Your task to perform on an android device: turn on notifications settings in the gmail app Image 0: 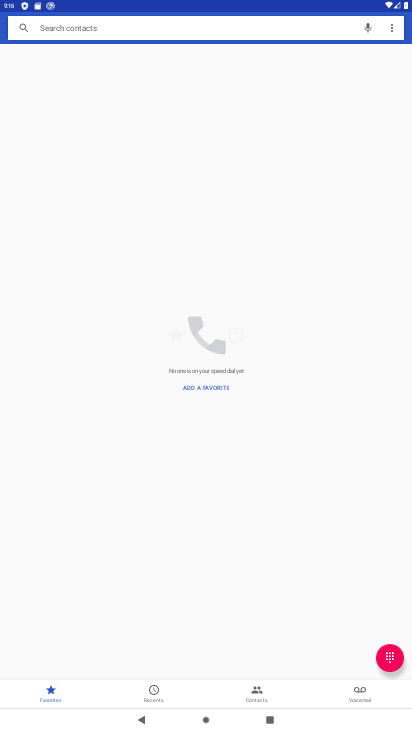
Step 0: press home button
Your task to perform on an android device: turn on notifications settings in the gmail app Image 1: 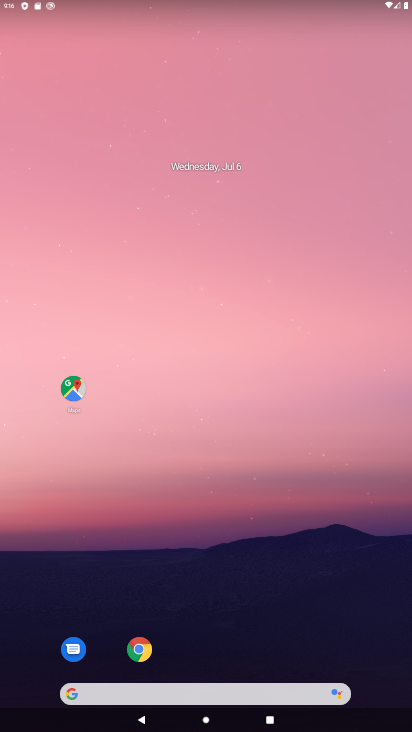
Step 1: drag from (223, 639) to (225, 168)
Your task to perform on an android device: turn on notifications settings in the gmail app Image 2: 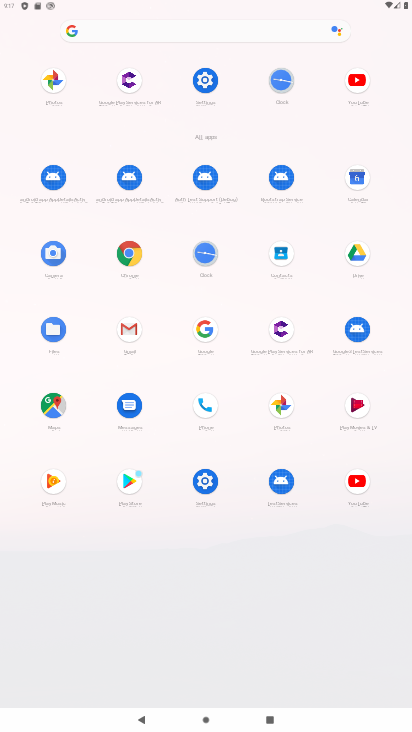
Step 2: click (137, 331)
Your task to perform on an android device: turn on notifications settings in the gmail app Image 3: 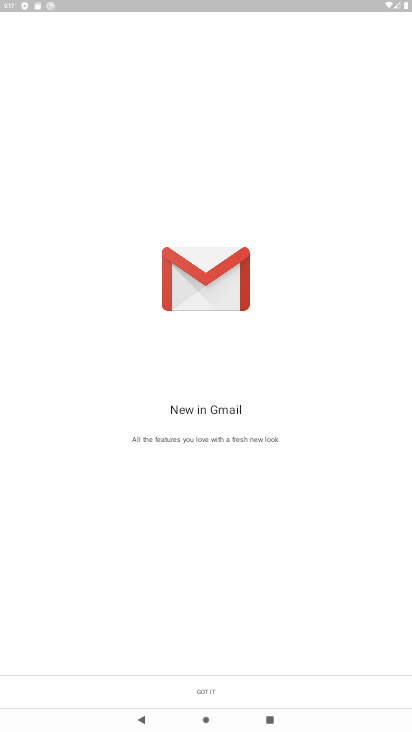
Step 3: click (235, 689)
Your task to perform on an android device: turn on notifications settings in the gmail app Image 4: 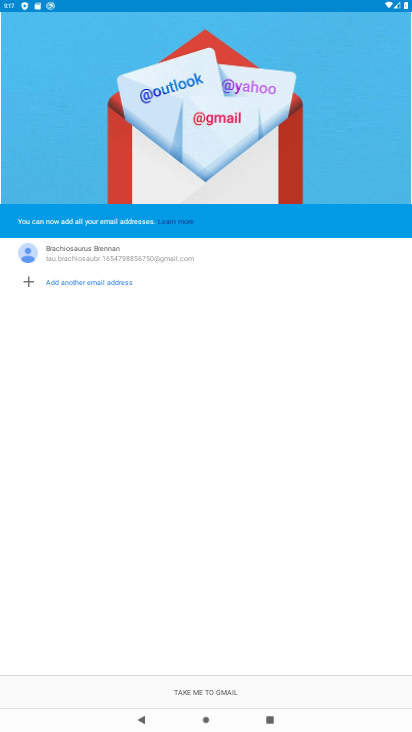
Step 4: click (220, 687)
Your task to perform on an android device: turn on notifications settings in the gmail app Image 5: 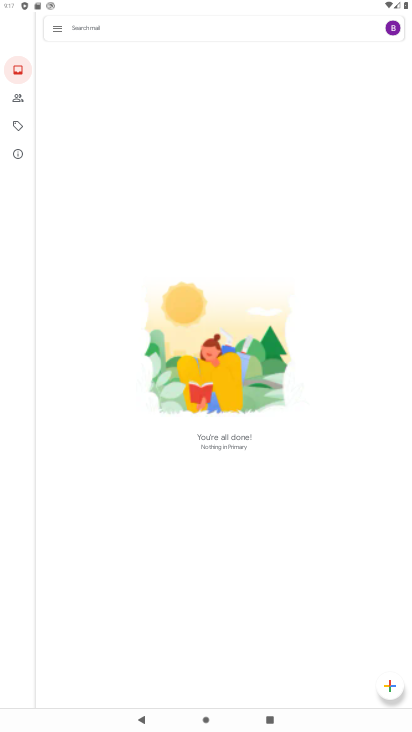
Step 5: click (60, 22)
Your task to perform on an android device: turn on notifications settings in the gmail app Image 6: 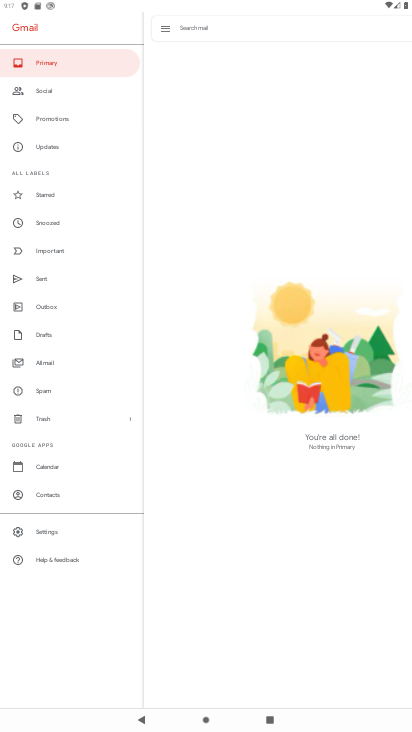
Step 6: click (49, 522)
Your task to perform on an android device: turn on notifications settings in the gmail app Image 7: 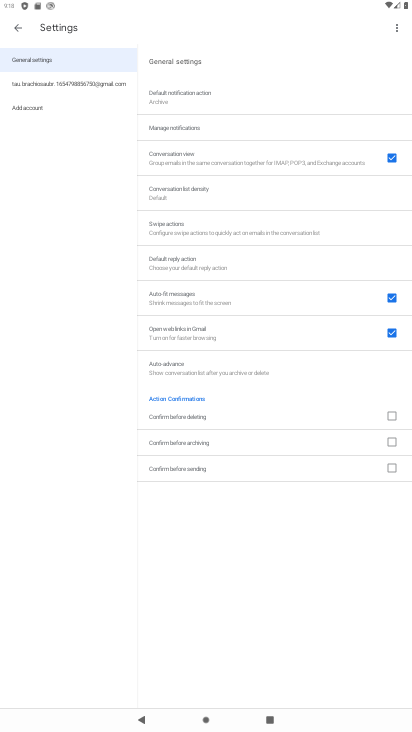
Step 7: click (227, 122)
Your task to perform on an android device: turn on notifications settings in the gmail app Image 8: 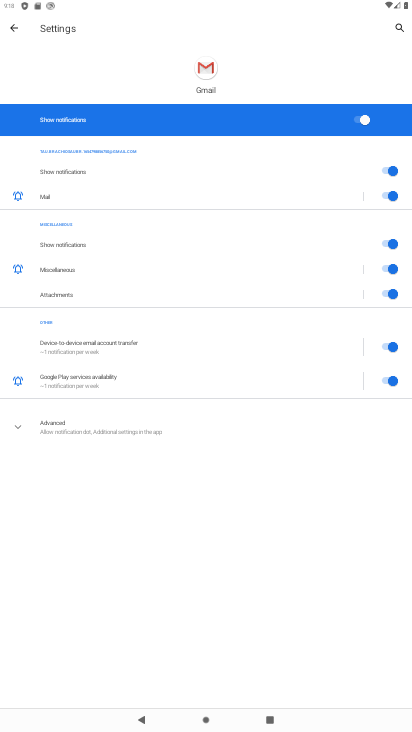
Step 8: task complete